Your task to perform on an android device: Open Yahoo.com Image 0: 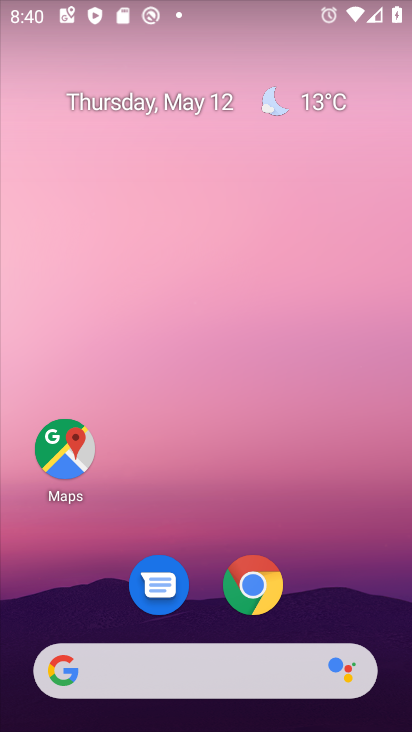
Step 0: click (214, 665)
Your task to perform on an android device: Open Yahoo.com Image 1: 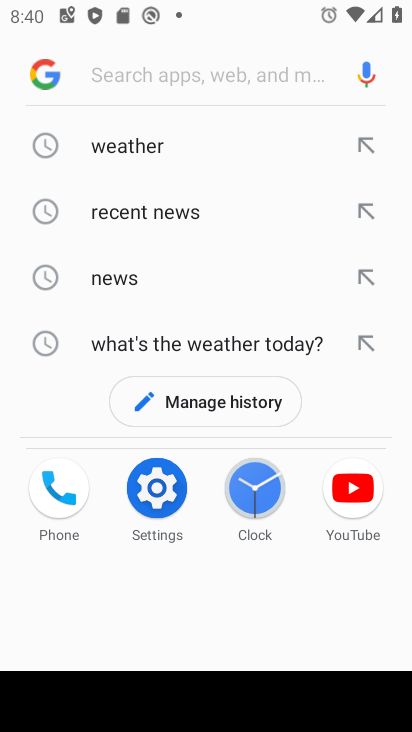
Step 1: type "yahoo.com"
Your task to perform on an android device: Open Yahoo.com Image 2: 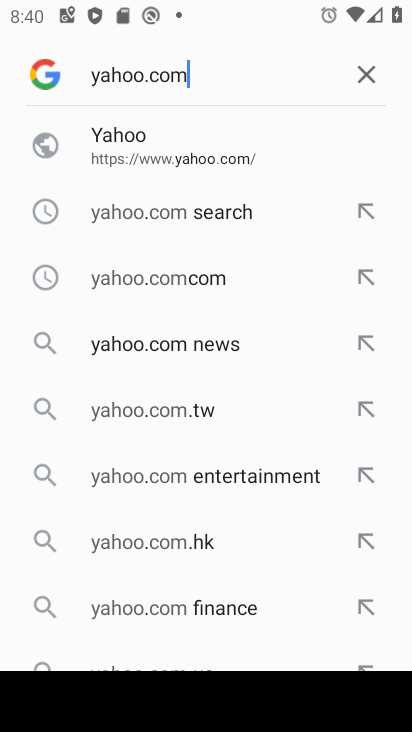
Step 2: click (107, 114)
Your task to perform on an android device: Open Yahoo.com Image 3: 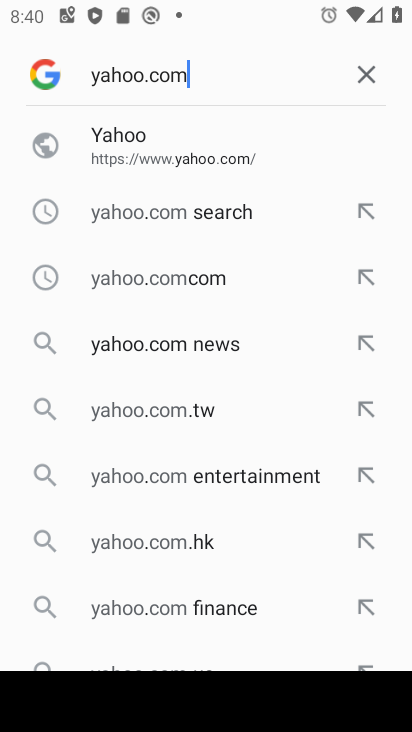
Step 3: click (105, 127)
Your task to perform on an android device: Open Yahoo.com Image 4: 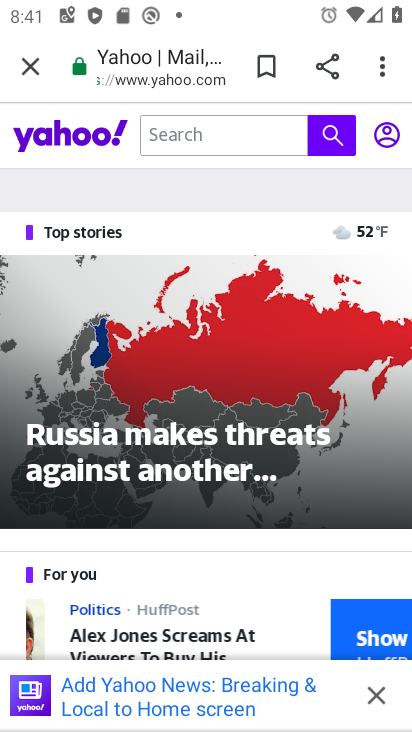
Step 4: task complete